Your task to perform on an android device: What is the recent news? Image 0: 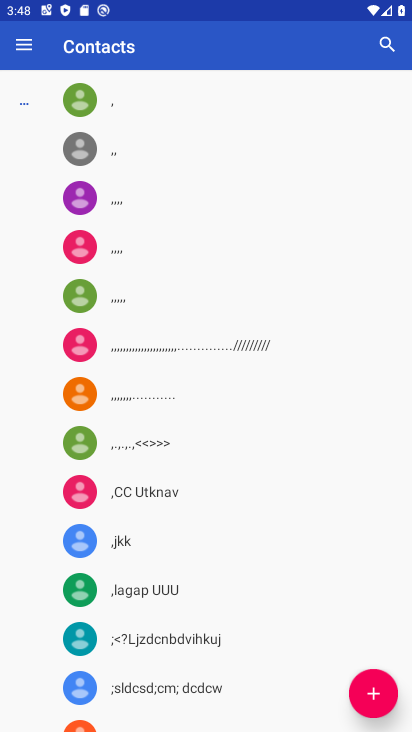
Step 0: press home button
Your task to perform on an android device: What is the recent news? Image 1: 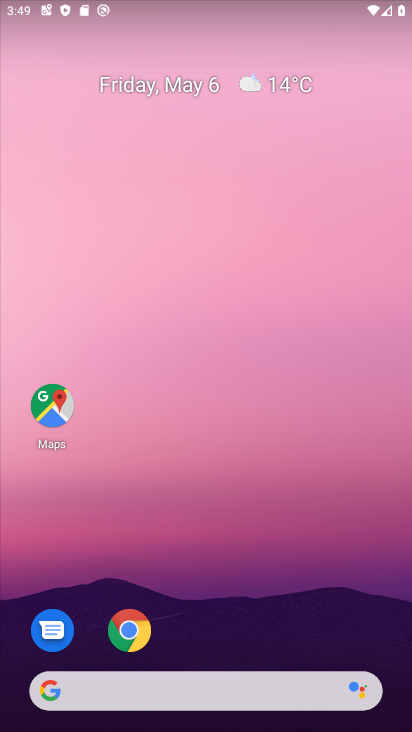
Step 1: click (157, 704)
Your task to perform on an android device: What is the recent news? Image 2: 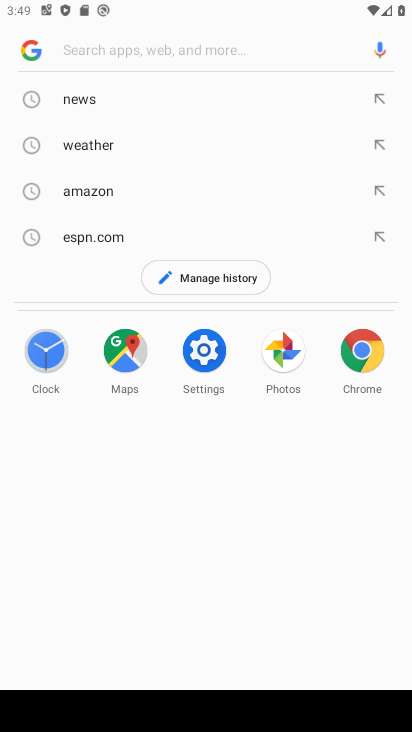
Step 2: click (129, 111)
Your task to perform on an android device: What is the recent news? Image 3: 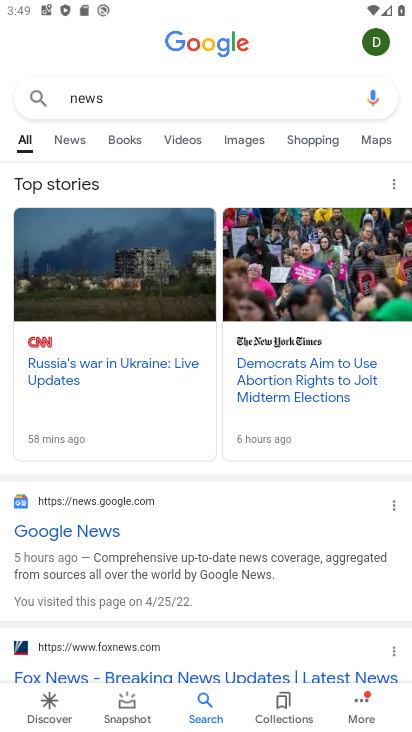
Step 3: task complete